Your task to perform on an android device: What's the weather going to be this weekend? Image 0: 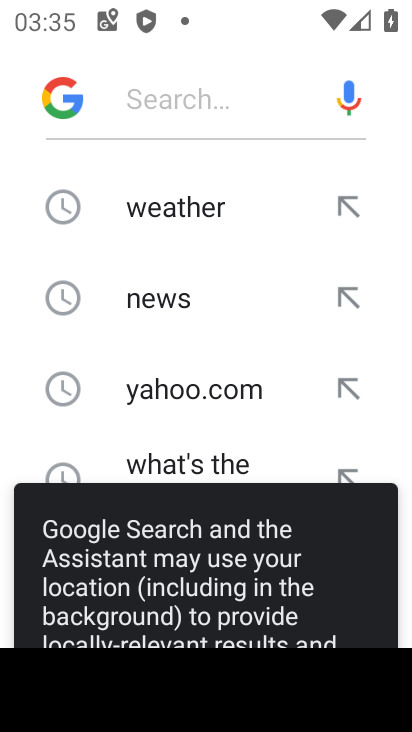
Step 0: press home button
Your task to perform on an android device: What's the weather going to be this weekend? Image 1: 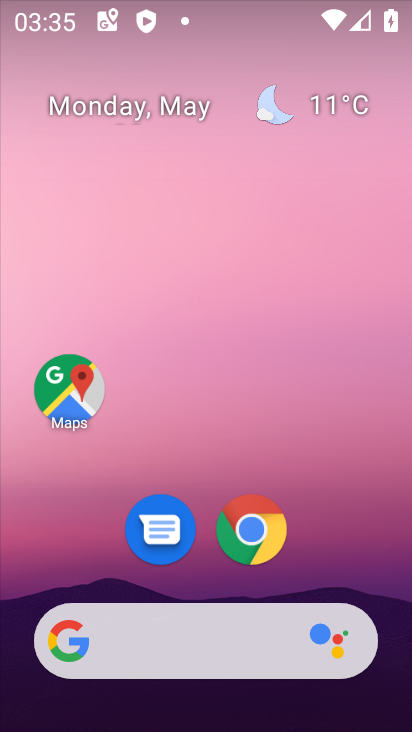
Step 1: click (322, 106)
Your task to perform on an android device: What's the weather going to be this weekend? Image 2: 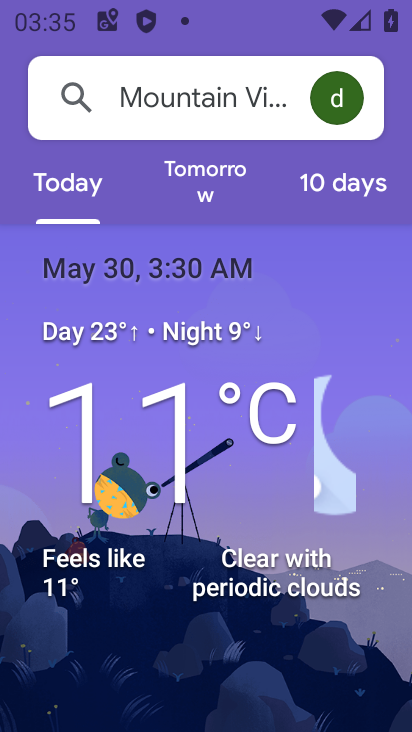
Step 2: click (324, 187)
Your task to perform on an android device: What's the weather going to be this weekend? Image 3: 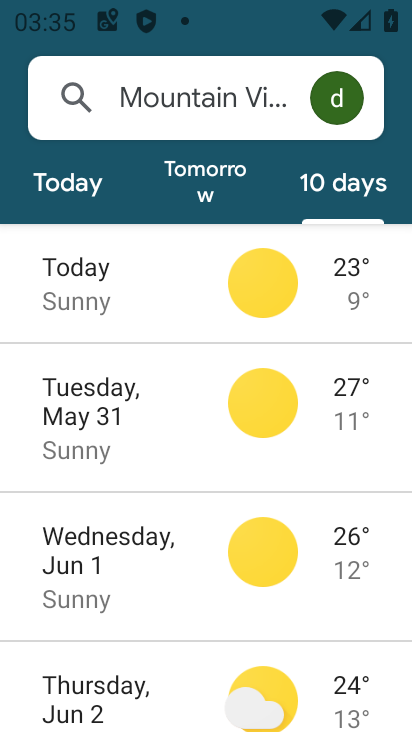
Step 3: task complete